Your task to perform on an android device: add a contact Image 0: 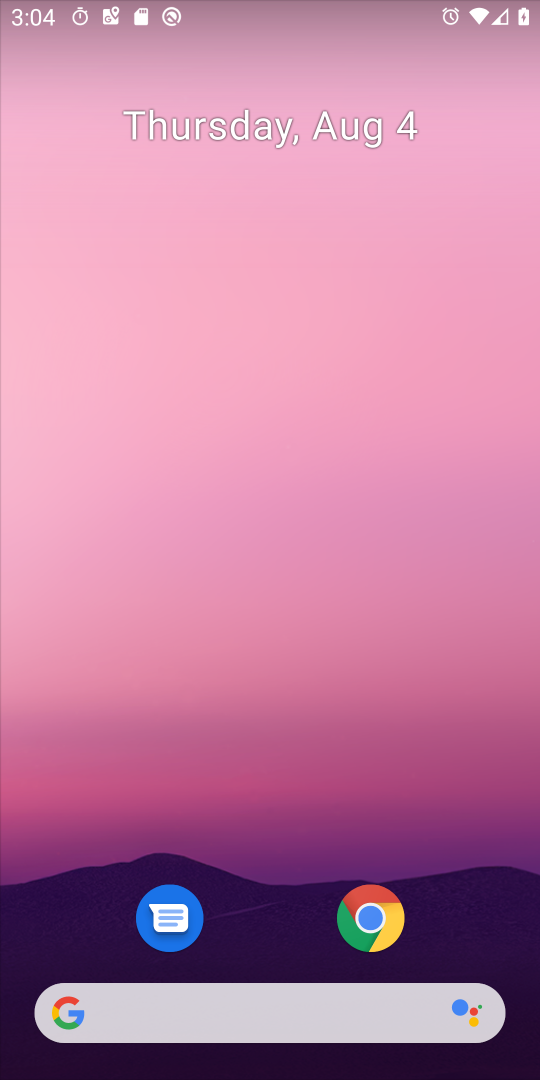
Step 0: drag from (249, 903) to (241, 159)
Your task to perform on an android device: add a contact Image 1: 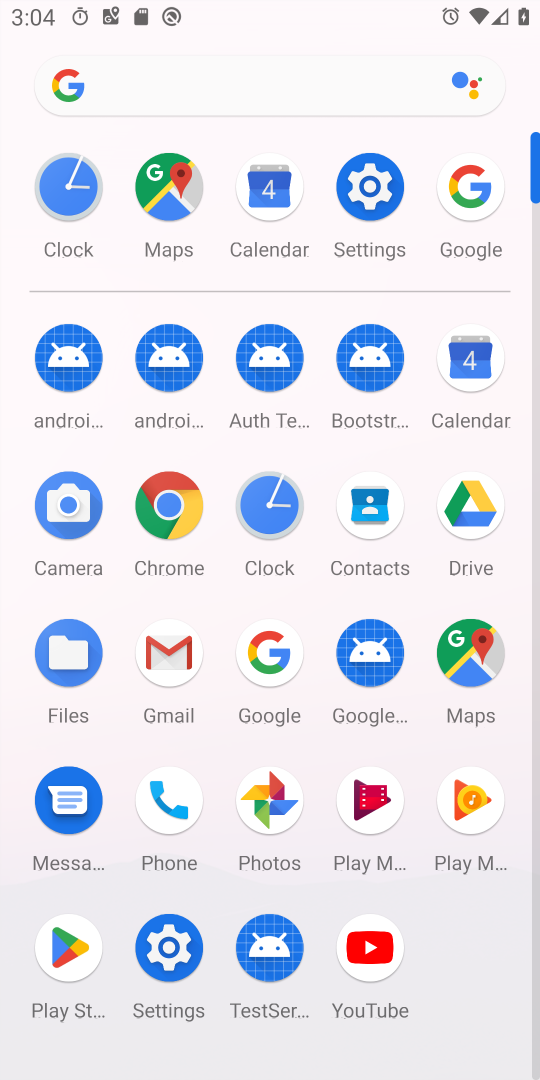
Step 1: click (359, 528)
Your task to perform on an android device: add a contact Image 2: 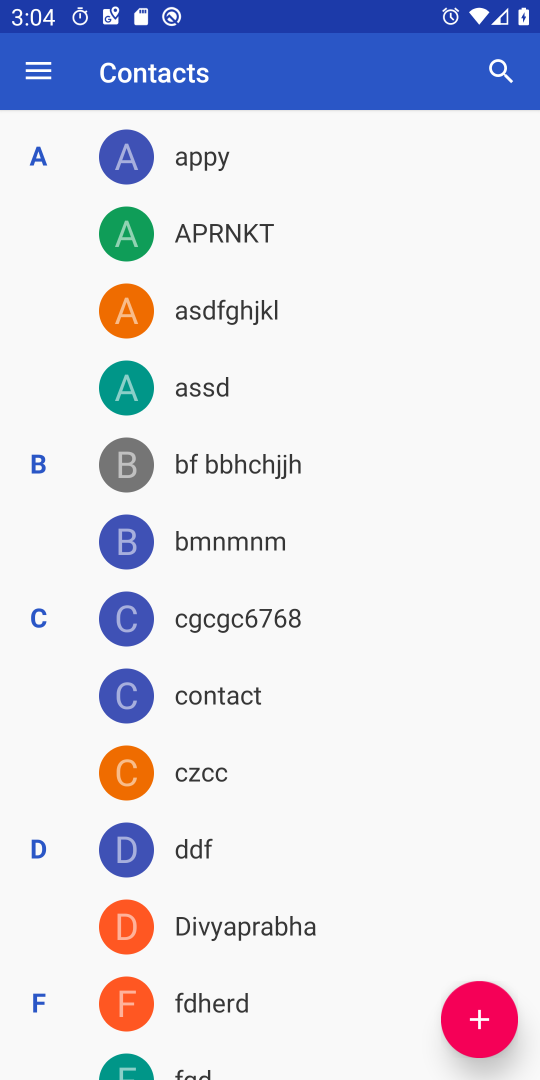
Step 2: click (465, 1005)
Your task to perform on an android device: add a contact Image 3: 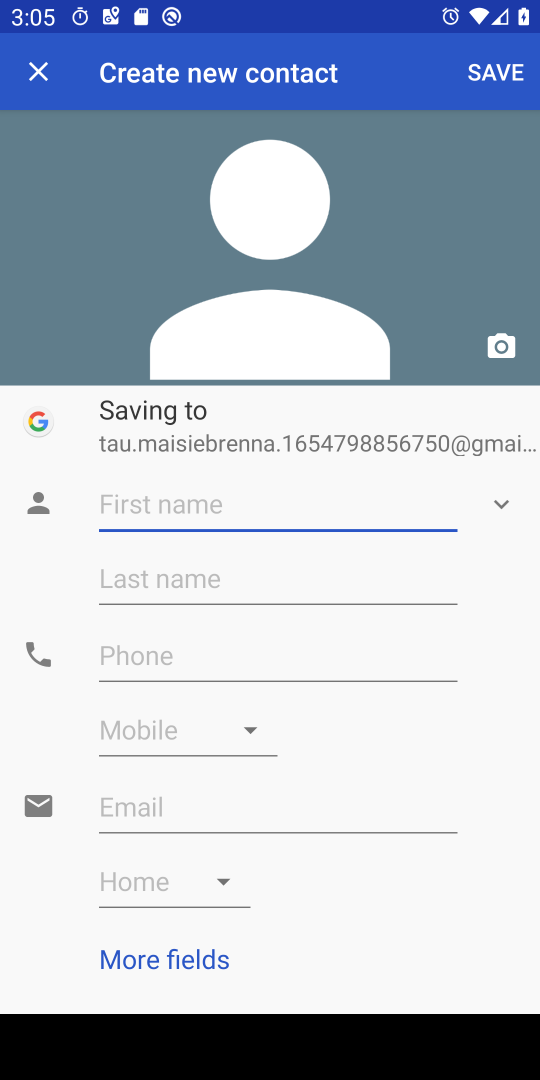
Step 3: type "sfdvfvfd"
Your task to perform on an android device: add a contact Image 4: 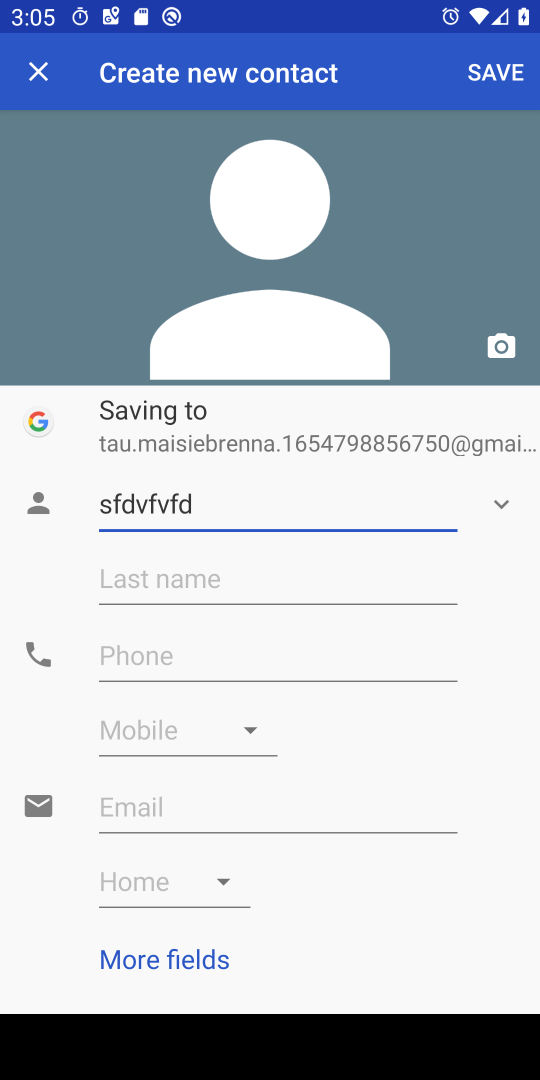
Step 4: click (167, 667)
Your task to perform on an android device: add a contact Image 5: 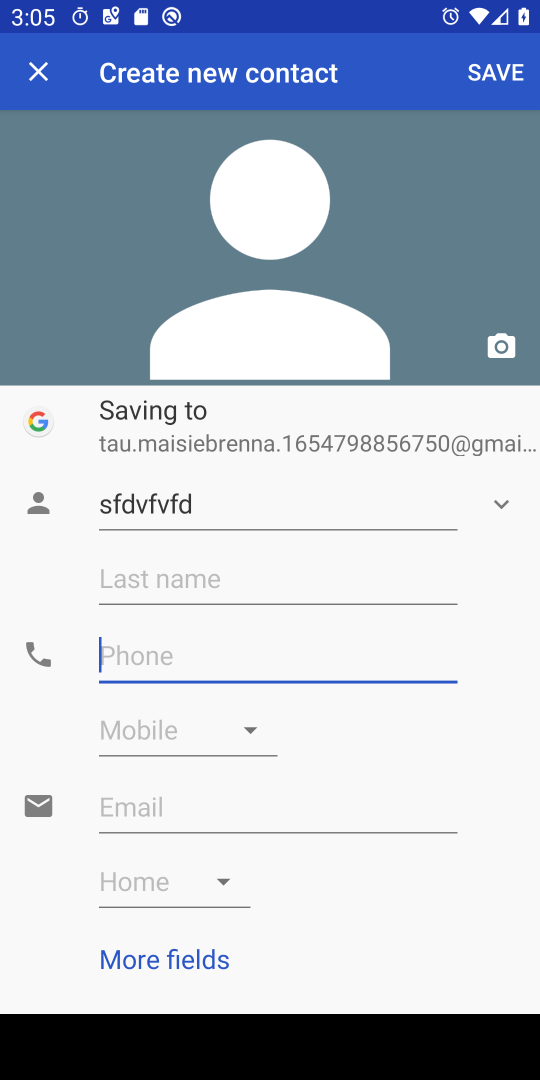
Step 5: type "75455346346"
Your task to perform on an android device: add a contact Image 6: 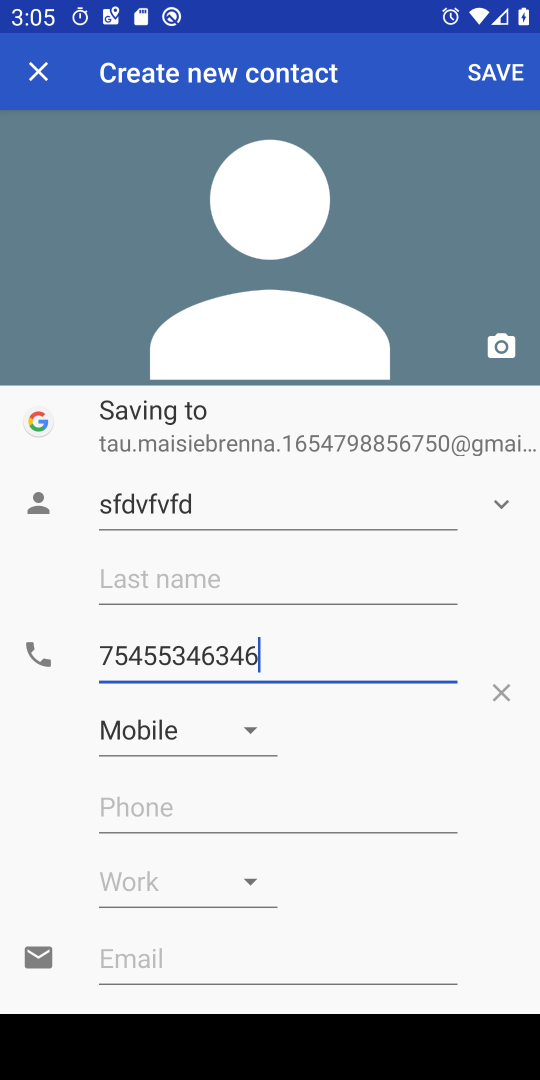
Step 6: click (519, 80)
Your task to perform on an android device: add a contact Image 7: 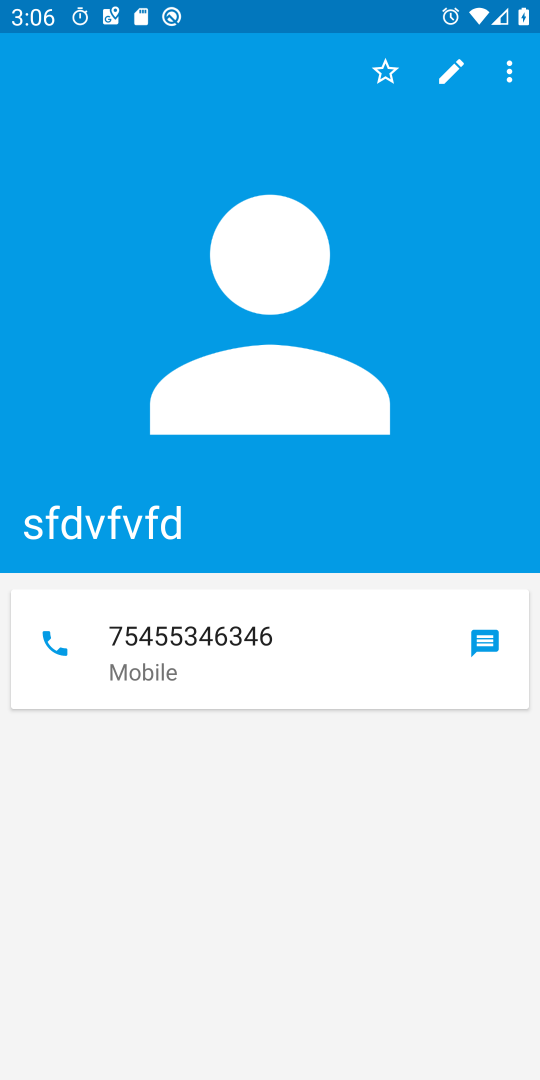
Step 7: task complete